Your task to perform on an android device: Go to eBay Image 0: 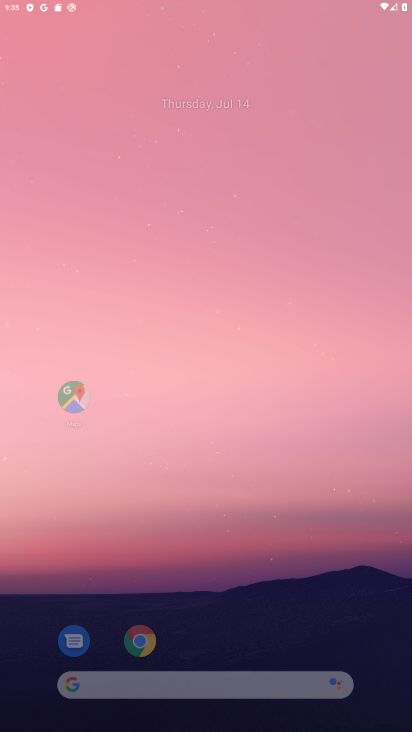
Step 0: drag from (332, 377) to (332, 127)
Your task to perform on an android device: Go to eBay Image 1: 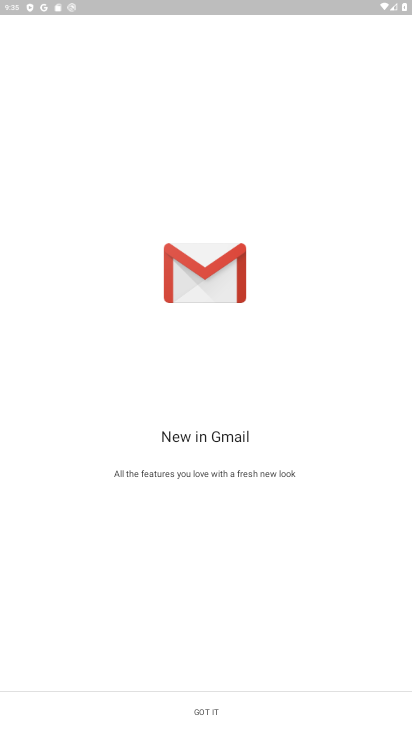
Step 1: click (226, 715)
Your task to perform on an android device: Go to eBay Image 2: 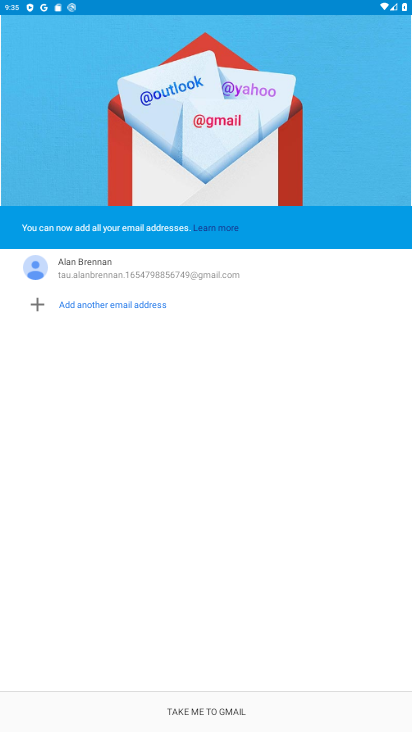
Step 2: press home button
Your task to perform on an android device: Go to eBay Image 3: 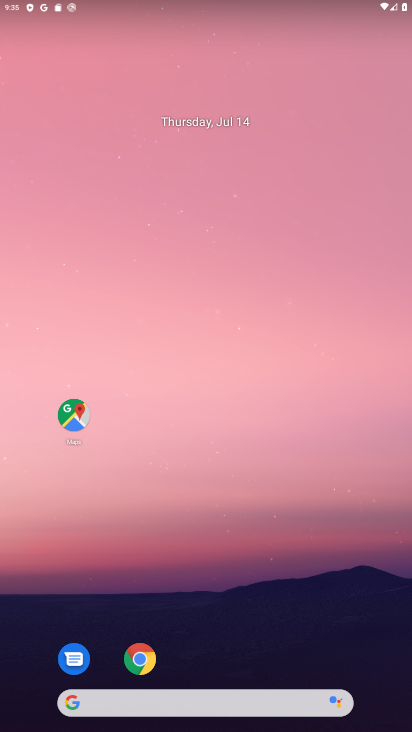
Step 3: drag from (303, 514) to (312, 107)
Your task to perform on an android device: Go to eBay Image 4: 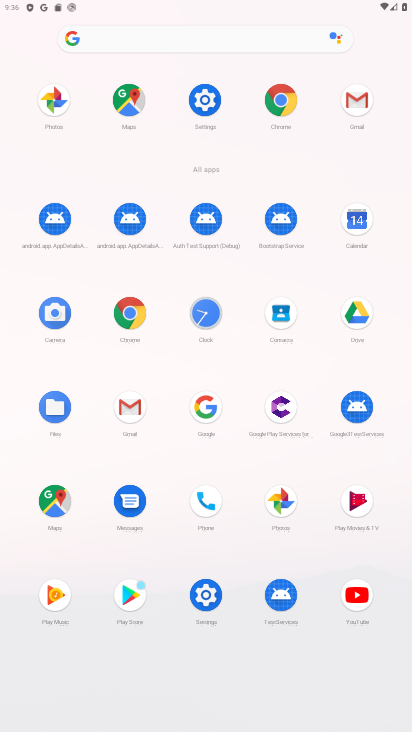
Step 4: click (128, 320)
Your task to perform on an android device: Go to eBay Image 5: 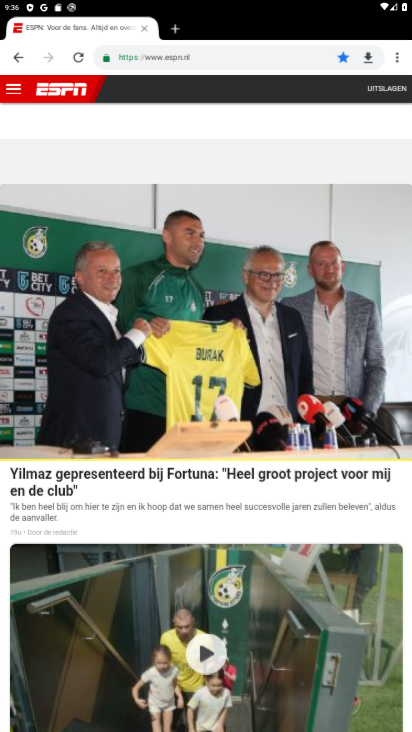
Step 5: click (180, 61)
Your task to perform on an android device: Go to eBay Image 6: 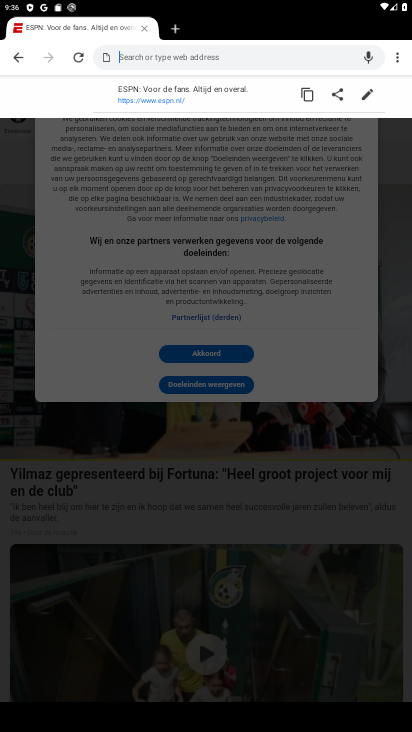
Step 6: type "ebay"
Your task to perform on an android device: Go to eBay Image 7: 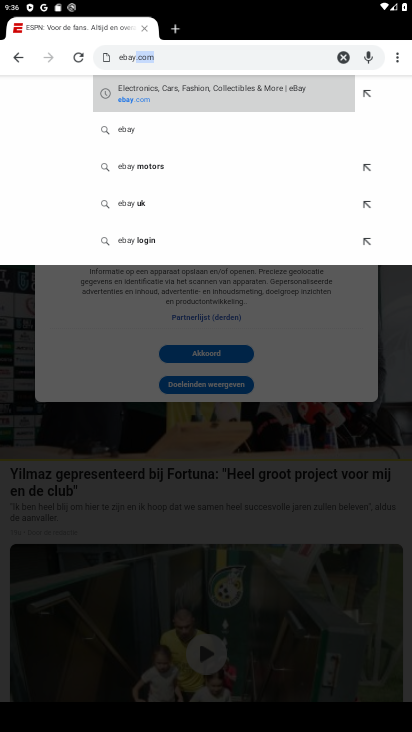
Step 7: click (135, 98)
Your task to perform on an android device: Go to eBay Image 8: 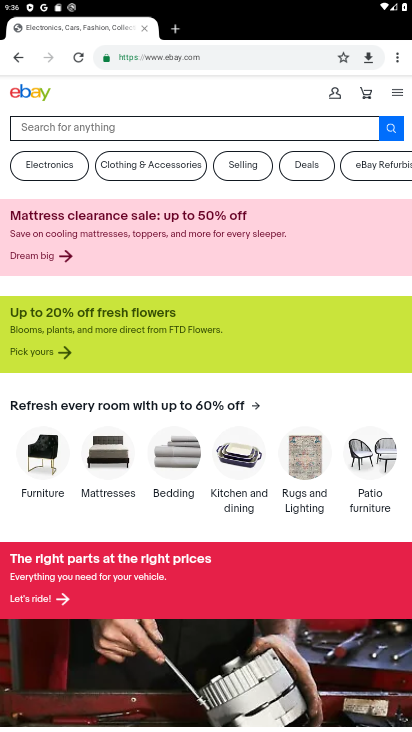
Step 8: task complete